Your task to perform on an android device: turn vacation reply on in the gmail app Image 0: 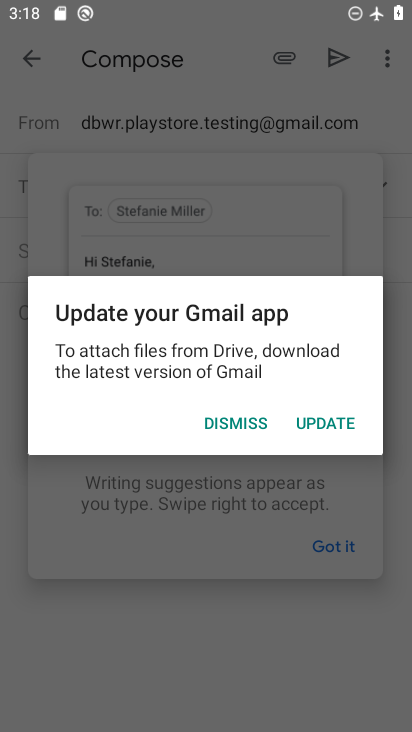
Step 0: click (241, 419)
Your task to perform on an android device: turn vacation reply on in the gmail app Image 1: 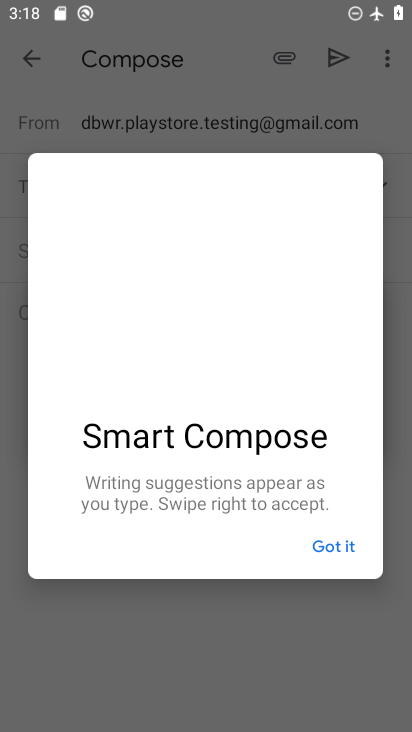
Step 1: click (327, 546)
Your task to perform on an android device: turn vacation reply on in the gmail app Image 2: 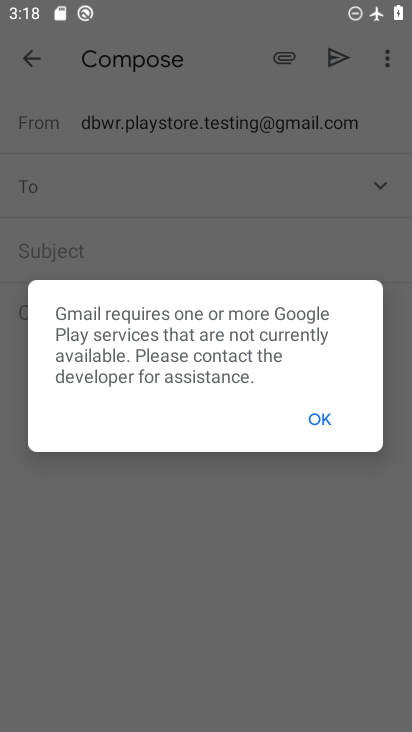
Step 2: click (316, 408)
Your task to perform on an android device: turn vacation reply on in the gmail app Image 3: 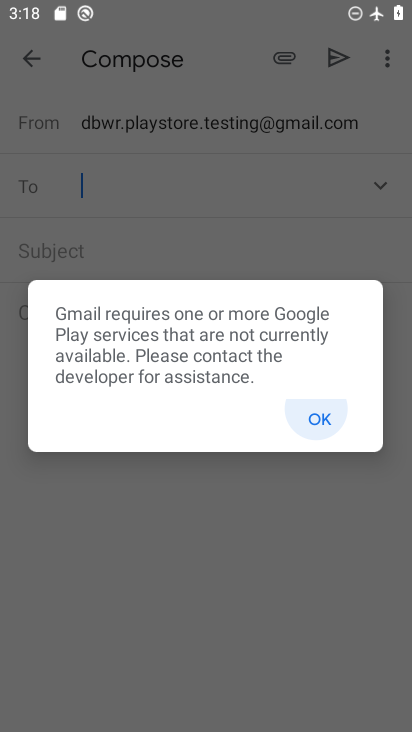
Step 3: click (316, 408)
Your task to perform on an android device: turn vacation reply on in the gmail app Image 4: 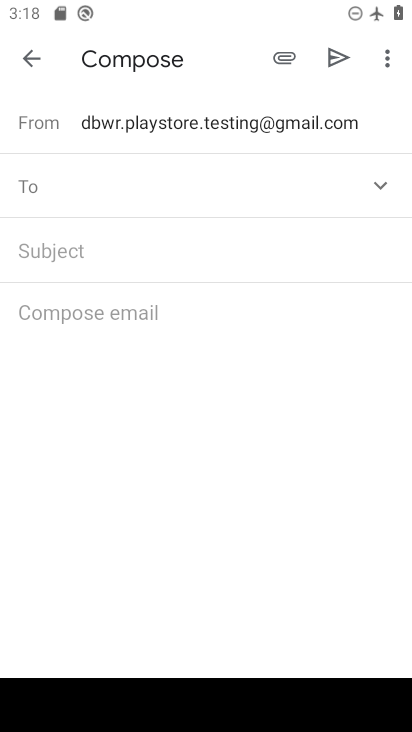
Step 4: click (31, 68)
Your task to perform on an android device: turn vacation reply on in the gmail app Image 5: 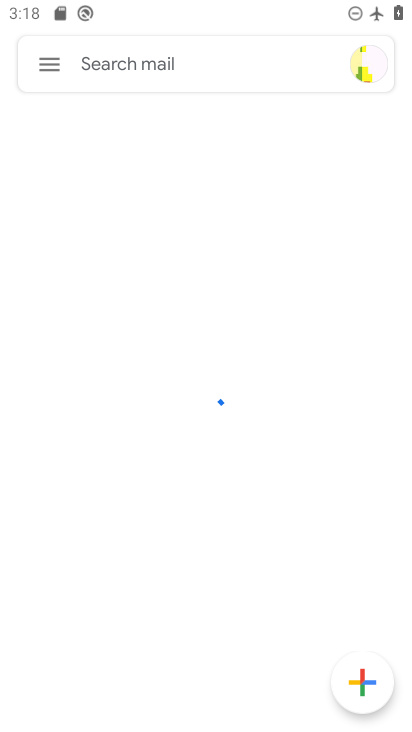
Step 5: type ""
Your task to perform on an android device: turn vacation reply on in the gmail app Image 6: 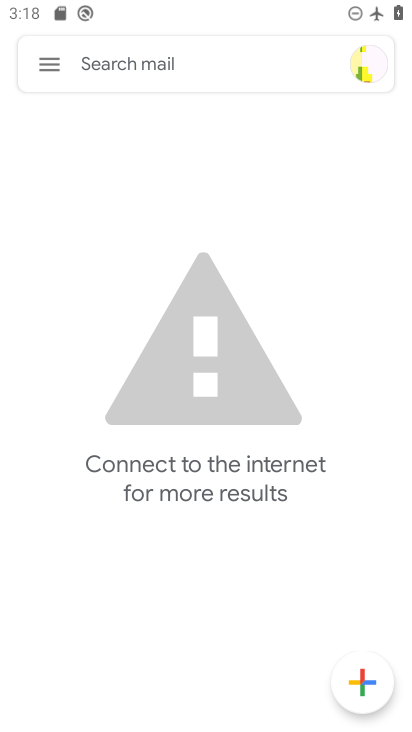
Step 6: click (51, 61)
Your task to perform on an android device: turn vacation reply on in the gmail app Image 7: 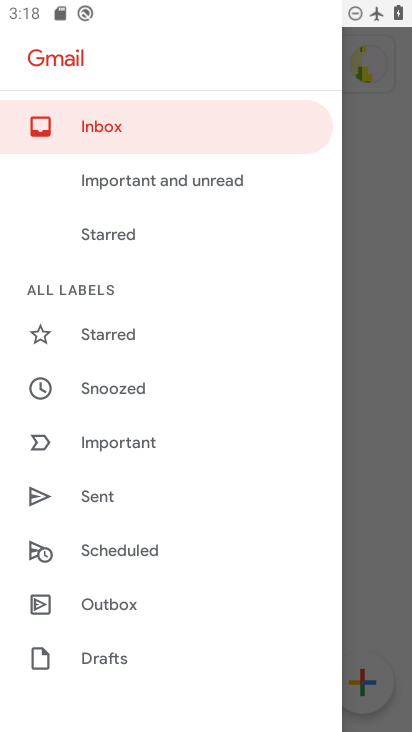
Step 7: drag from (211, 559) to (158, 229)
Your task to perform on an android device: turn vacation reply on in the gmail app Image 8: 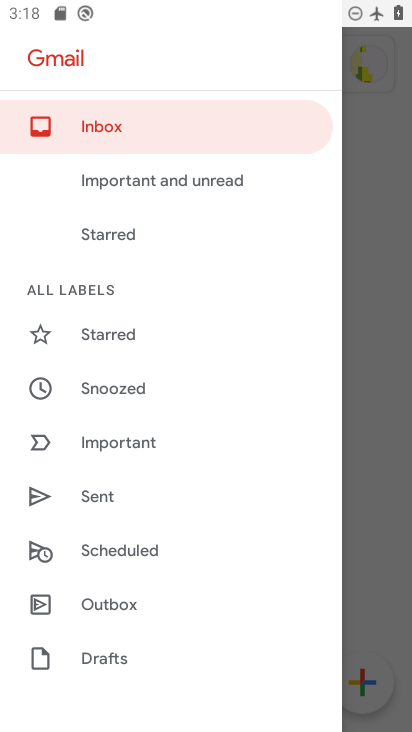
Step 8: drag from (199, 632) to (108, 155)
Your task to perform on an android device: turn vacation reply on in the gmail app Image 9: 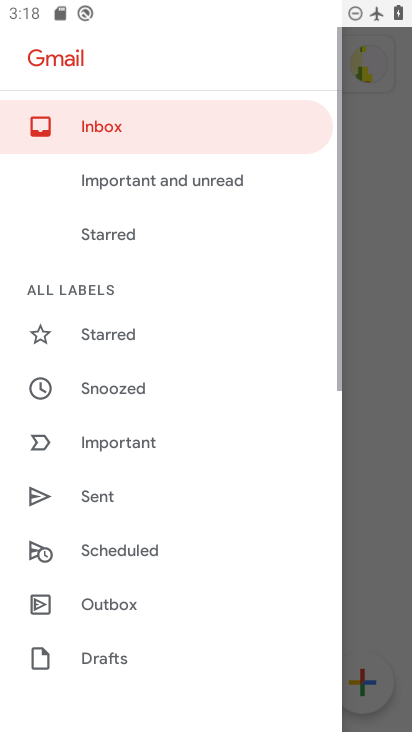
Step 9: drag from (207, 495) to (141, 112)
Your task to perform on an android device: turn vacation reply on in the gmail app Image 10: 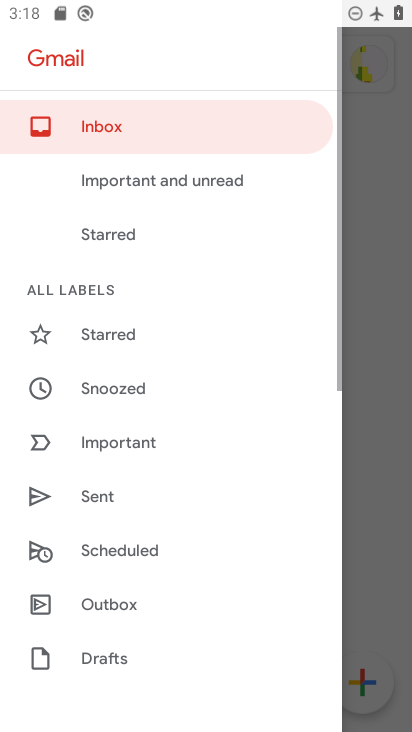
Step 10: drag from (157, 644) to (144, 120)
Your task to perform on an android device: turn vacation reply on in the gmail app Image 11: 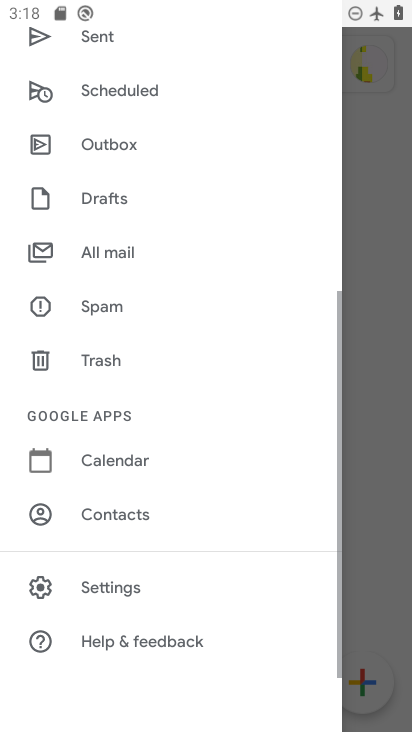
Step 11: drag from (174, 513) to (162, 53)
Your task to perform on an android device: turn vacation reply on in the gmail app Image 12: 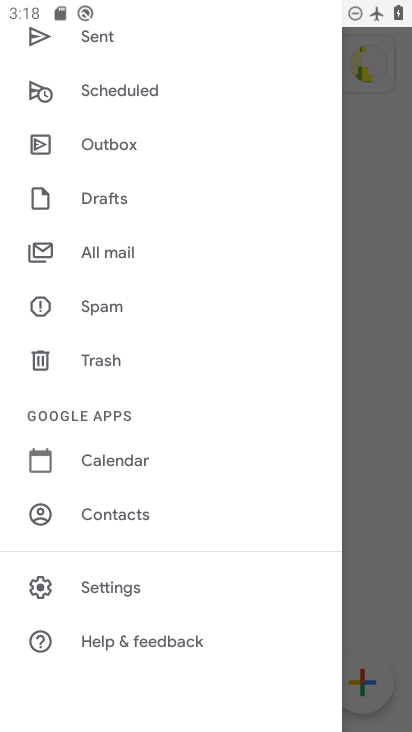
Step 12: click (116, 589)
Your task to perform on an android device: turn vacation reply on in the gmail app Image 13: 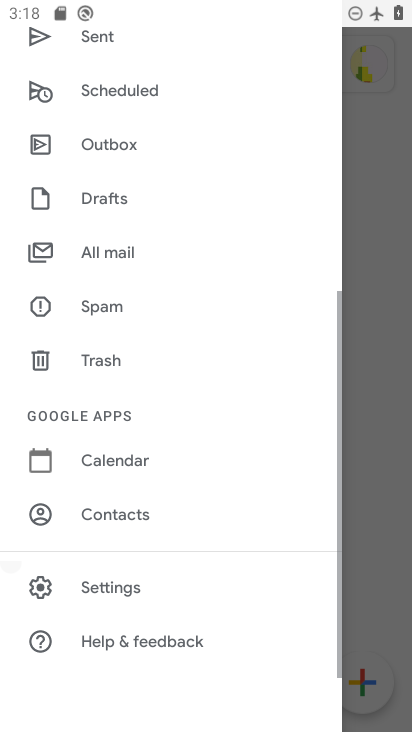
Step 13: click (116, 589)
Your task to perform on an android device: turn vacation reply on in the gmail app Image 14: 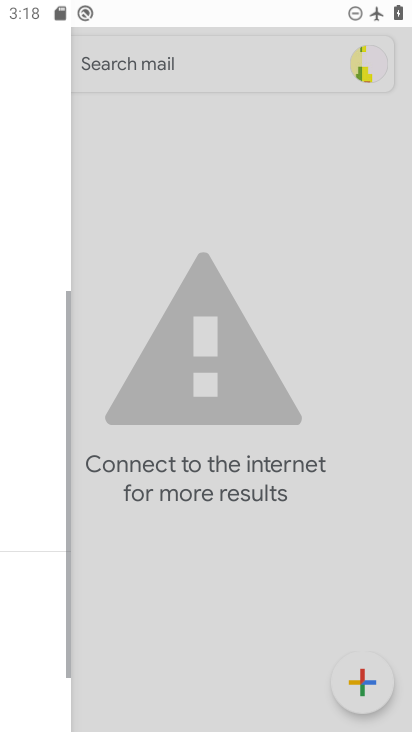
Step 14: click (116, 589)
Your task to perform on an android device: turn vacation reply on in the gmail app Image 15: 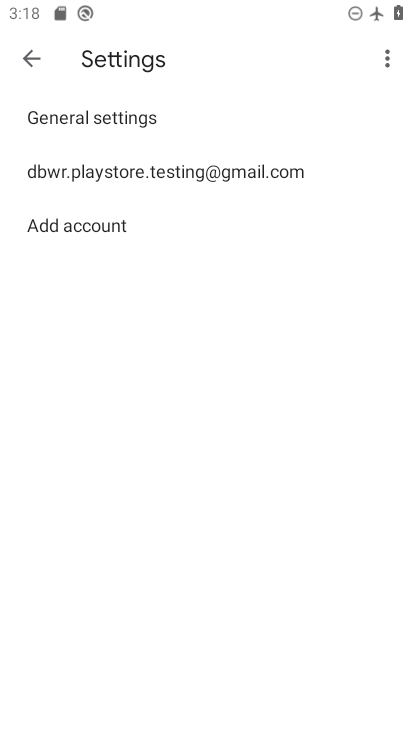
Step 15: click (118, 170)
Your task to perform on an android device: turn vacation reply on in the gmail app Image 16: 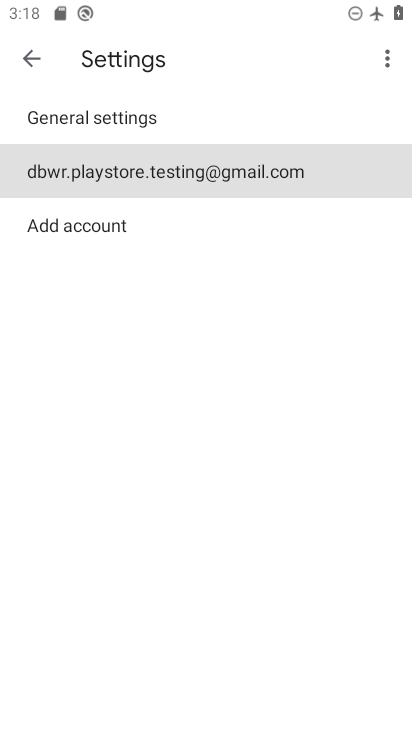
Step 16: click (116, 172)
Your task to perform on an android device: turn vacation reply on in the gmail app Image 17: 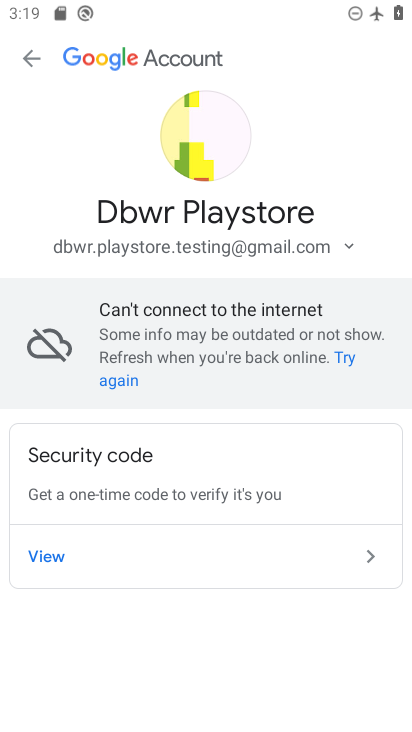
Step 17: click (25, 49)
Your task to perform on an android device: turn vacation reply on in the gmail app Image 18: 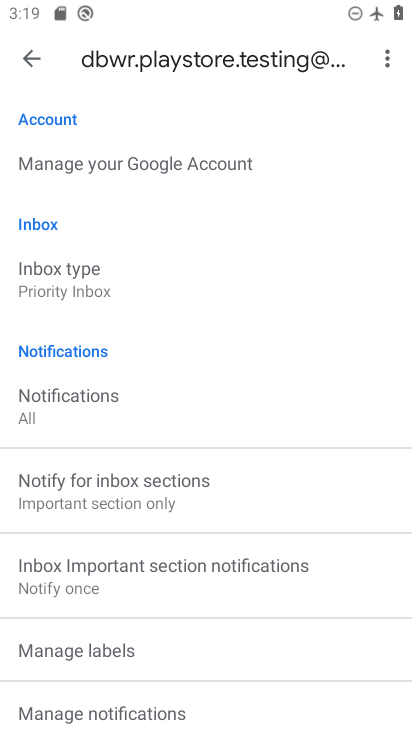
Step 18: drag from (143, 609) to (97, 145)
Your task to perform on an android device: turn vacation reply on in the gmail app Image 19: 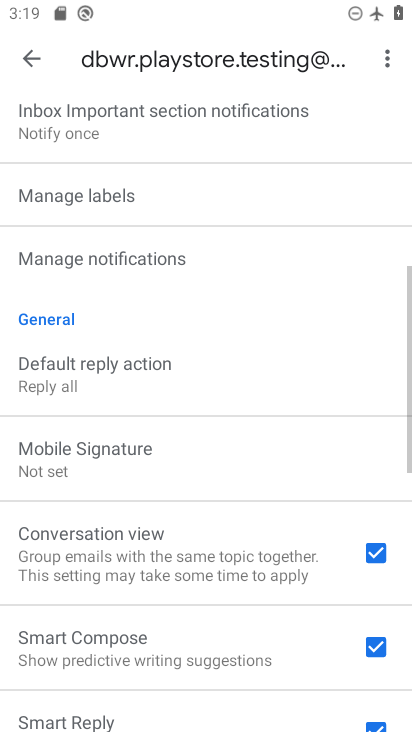
Step 19: drag from (112, 411) to (66, 167)
Your task to perform on an android device: turn vacation reply on in the gmail app Image 20: 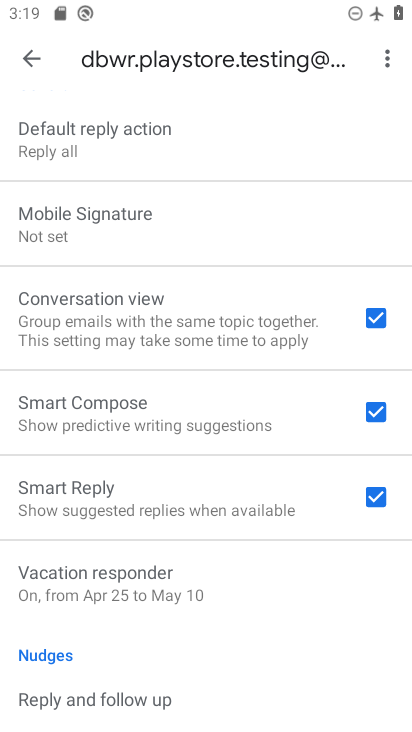
Step 20: click (108, 567)
Your task to perform on an android device: turn vacation reply on in the gmail app Image 21: 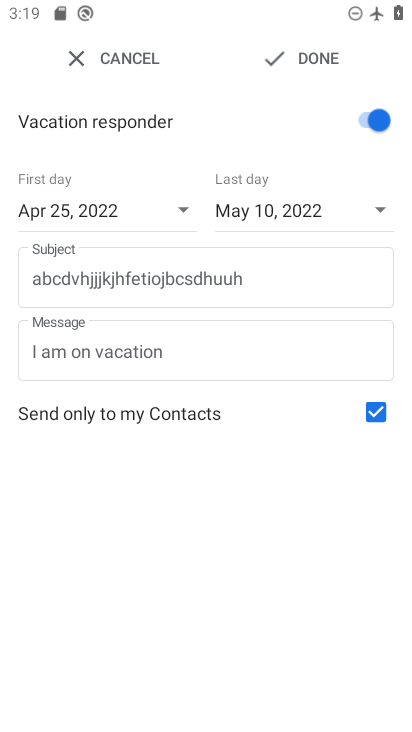
Step 21: task complete